Your task to perform on an android device: Go to Yahoo.com Image 0: 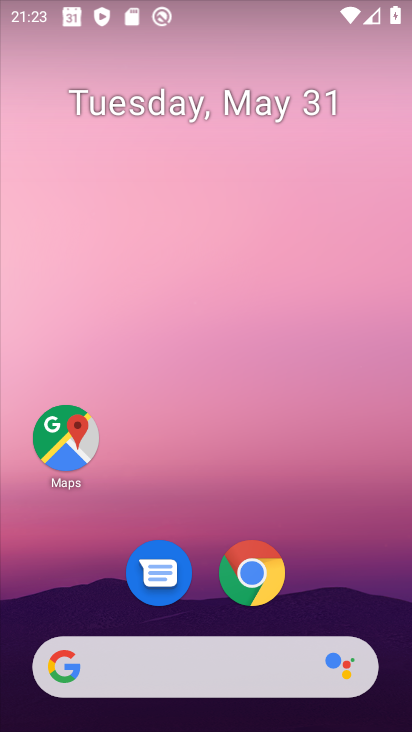
Step 0: drag from (324, 564) to (300, 129)
Your task to perform on an android device: Go to Yahoo.com Image 1: 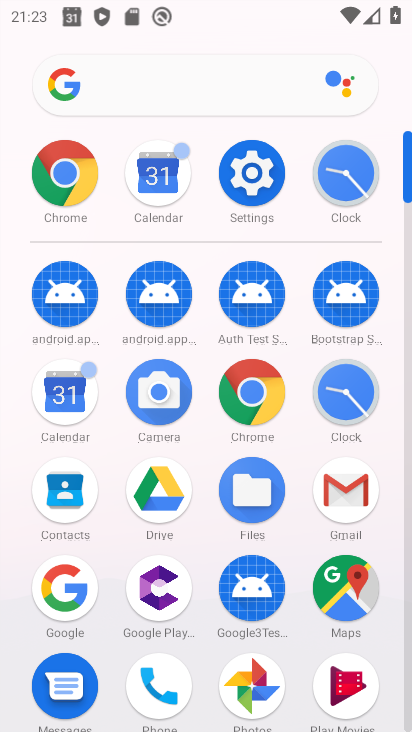
Step 1: click (255, 385)
Your task to perform on an android device: Go to Yahoo.com Image 2: 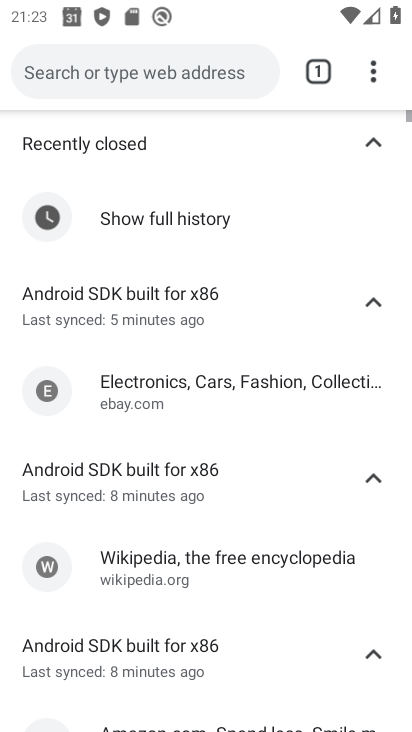
Step 2: click (173, 57)
Your task to perform on an android device: Go to Yahoo.com Image 3: 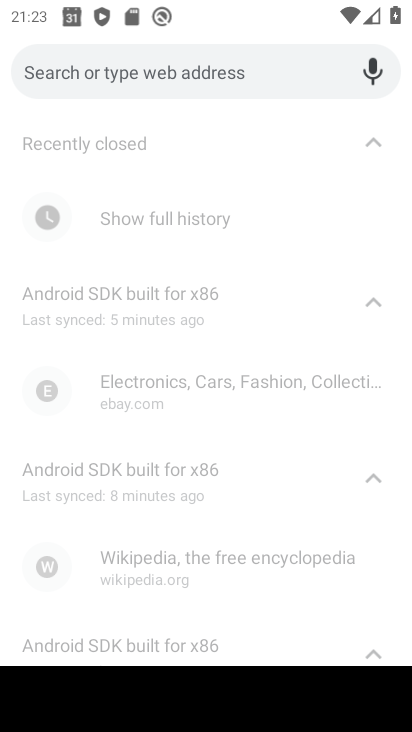
Step 3: type "yahoo.com"
Your task to perform on an android device: Go to Yahoo.com Image 4: 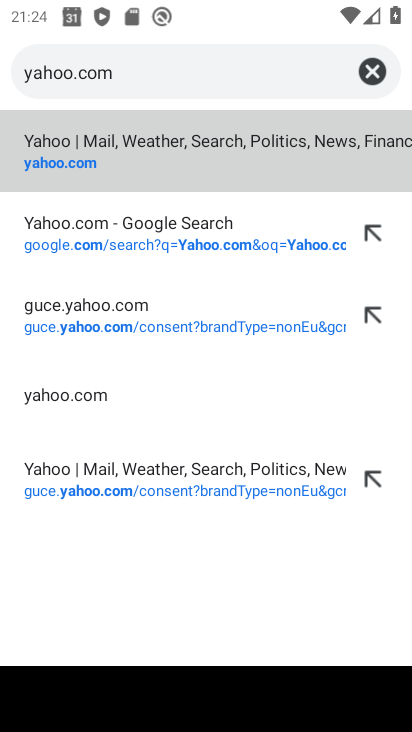
Step 4: click (71, 169)
Your task to perform on an android device: Go to Yahoo.com Image 5: 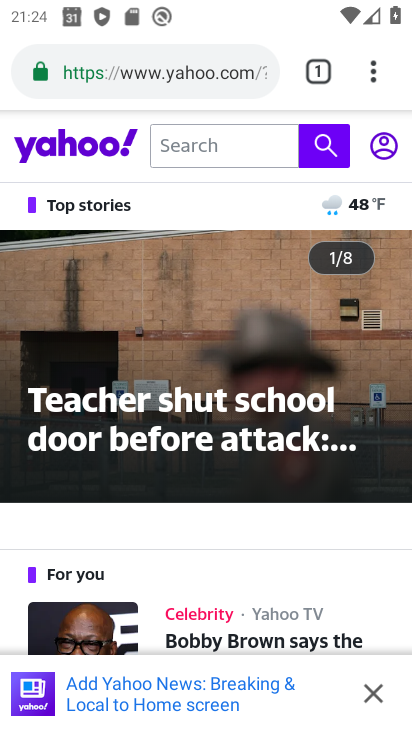
Step 5: task complete